Your task to perform on an android device: visit the assistant section in the google photos Image 0: 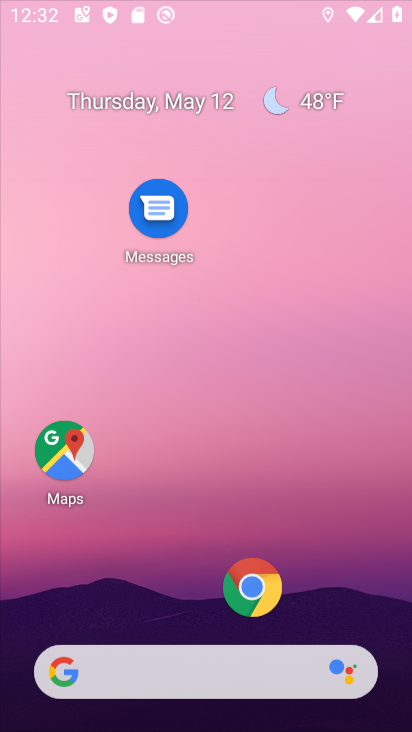
Step 0: click (186, 0)
Your task to perform on an android device: visit the assistant section in the google photos Image 1: 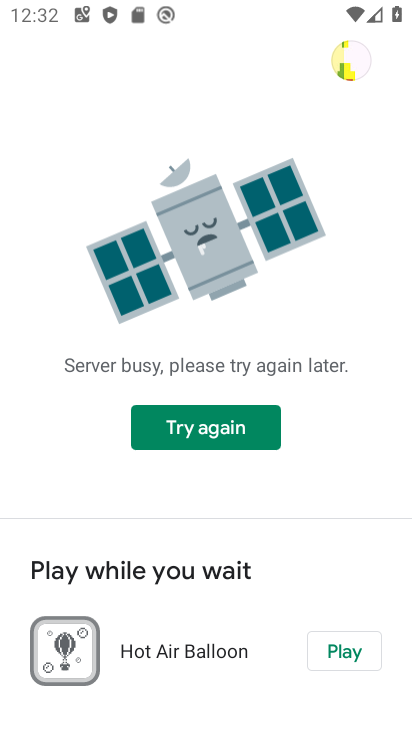
Step 1: press home button
Your task to perform on an android device: visit the assistant section in the google photos Image 2: 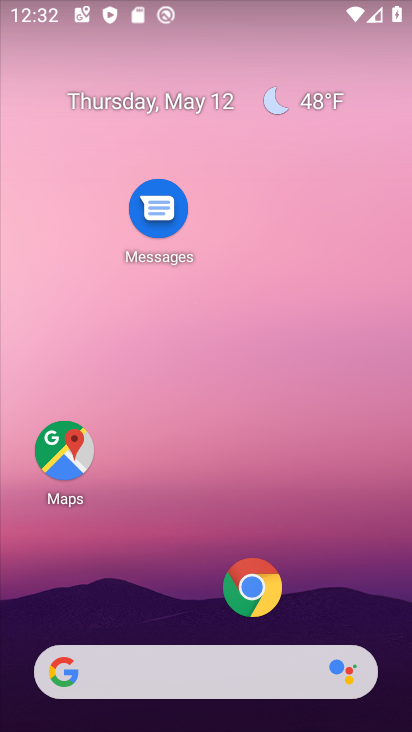
Step 2: drag from (214, 635) to (126, 92)
Your task to perform on an android device: visit the assistant section in the google photos Image 3: 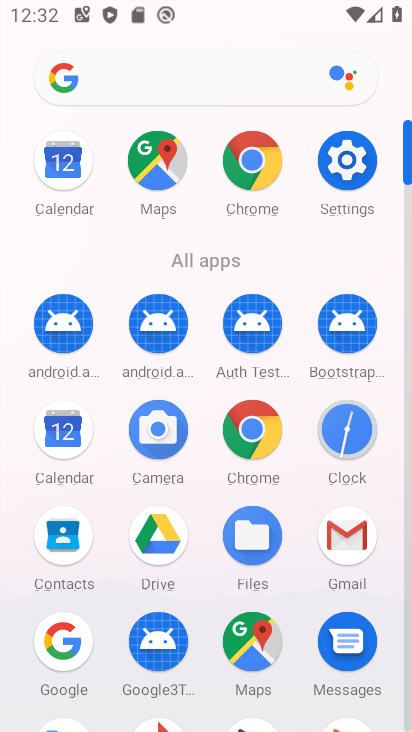
Step 3: drag from (205, 585) to (133, 232)
Your task to perform on an android device: visit the assistant section in the google photos Image 4: 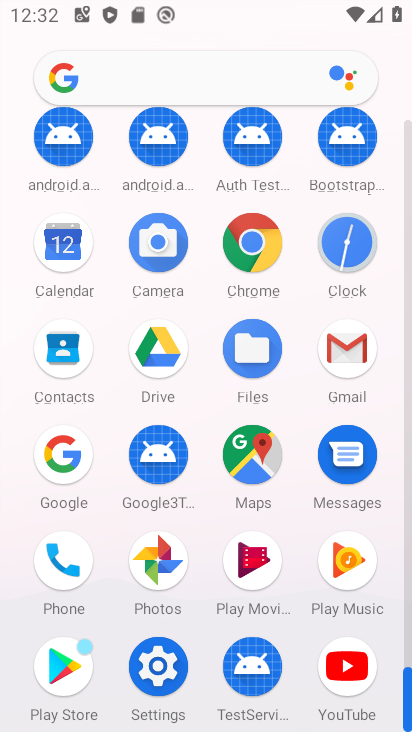
Step 4: click (166, 572)
Your task to perform on an android device: visit the assistant section in the google photos Image 5: 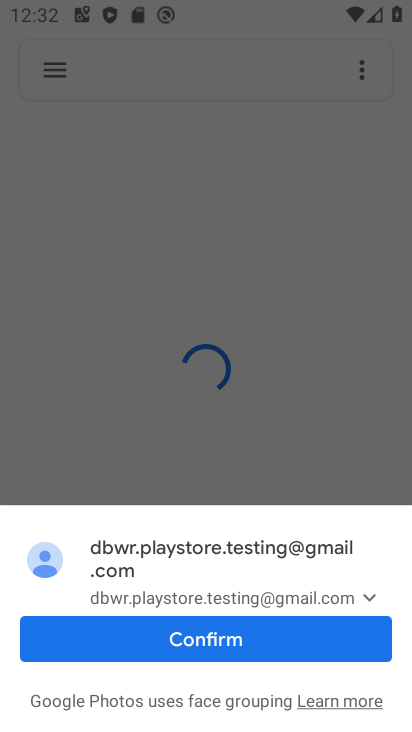
Step 5: click (248, 694)
Your task to perform on an android device: visit the assistant section in the google photos Image 6: 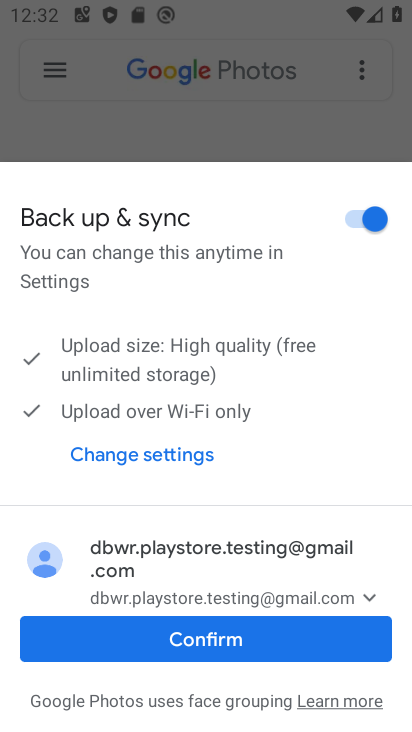
Step 6: click (262, 646)
Your task to perform on an android device: visit the assistant section in the google photos Image 7: 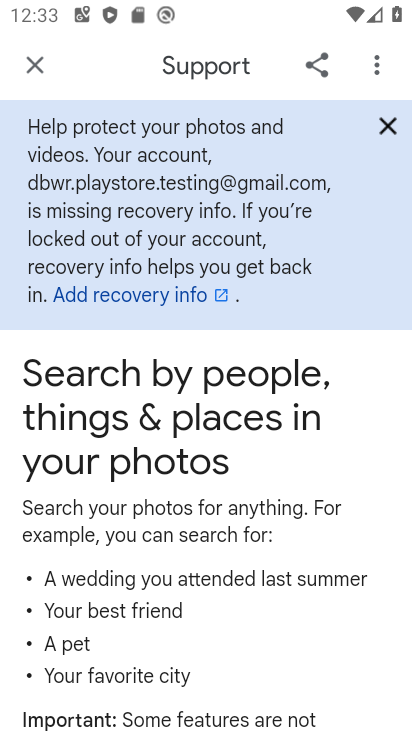
Step 7: click (28, 62)
Your task to perform on an android device: visit the assistant section in the google photos Image 8: 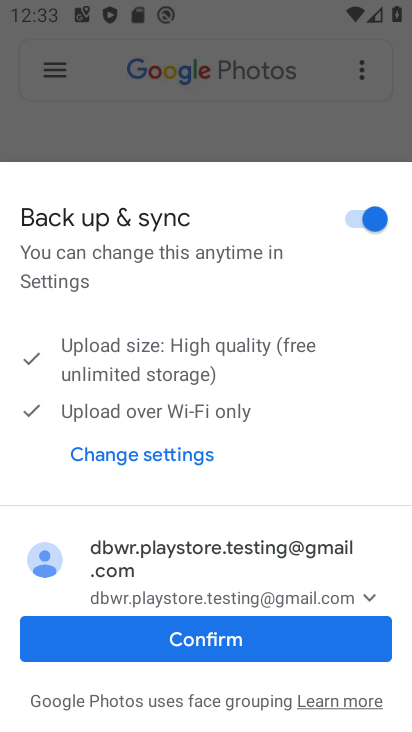
Step 8: click (232, 639)
Your task to perform on an android device: visit the assistant section in the google photos Image 9: 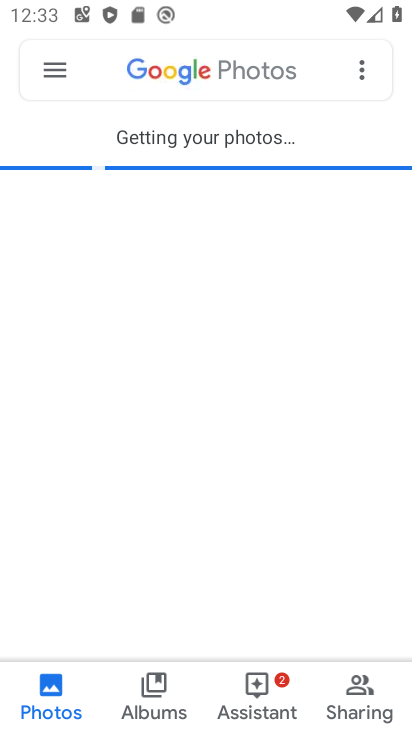
Step 9: click (249, 697)
Your task to perform on an android device: visit the assistant section in the google photos Image 10: 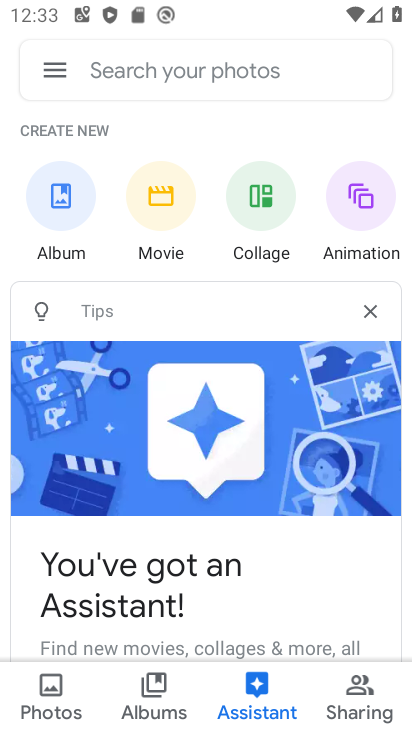
Step 10: task complete